Your task to perform on an android device: Set the phone to "Do not disturb". Image 0: 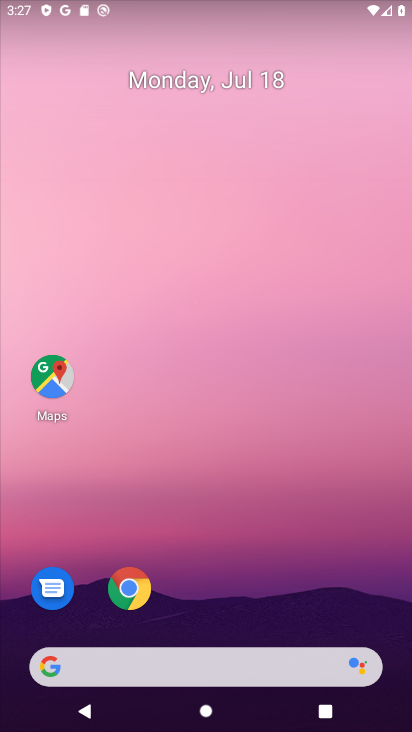
Step 0: press home button
Your task to perform on an android device: Set the phone to "Do not disturb". Image 1: 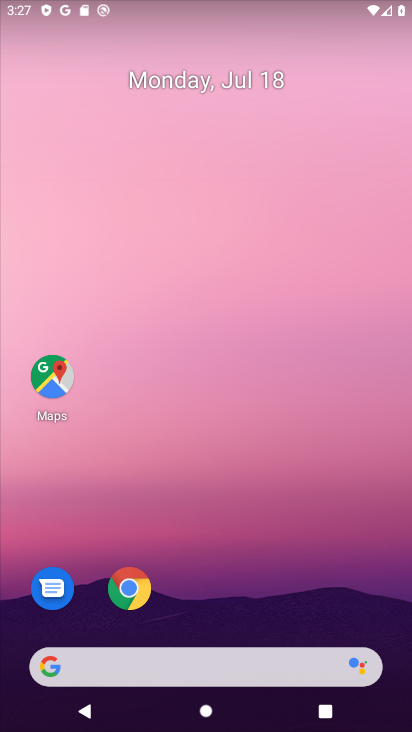
Step 1: drag from (215, 4) to (249, 537)
Your task to perform on an android device: Set the phone to "Do not disturb". Image 2: 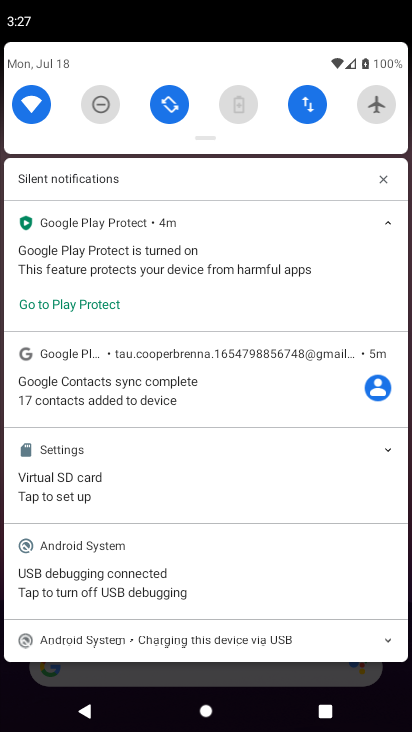
Step 2: click (97, 106)
Your task to perform on an android device: Set the phone to "Do not disturb". Image 3: 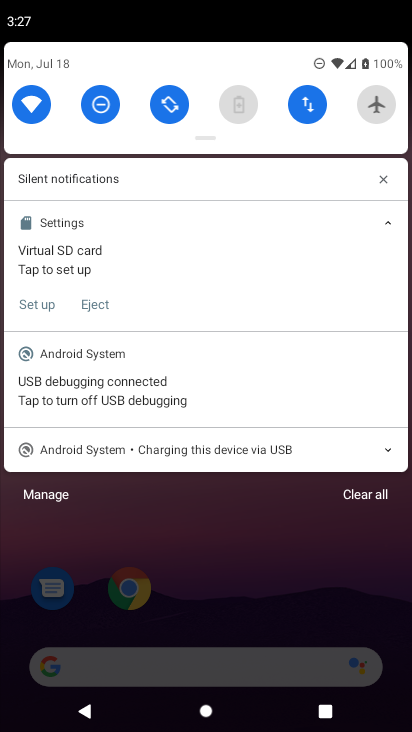
Step 3: task complete